Your task to perform on an android device: Go to Android settings Image 0: 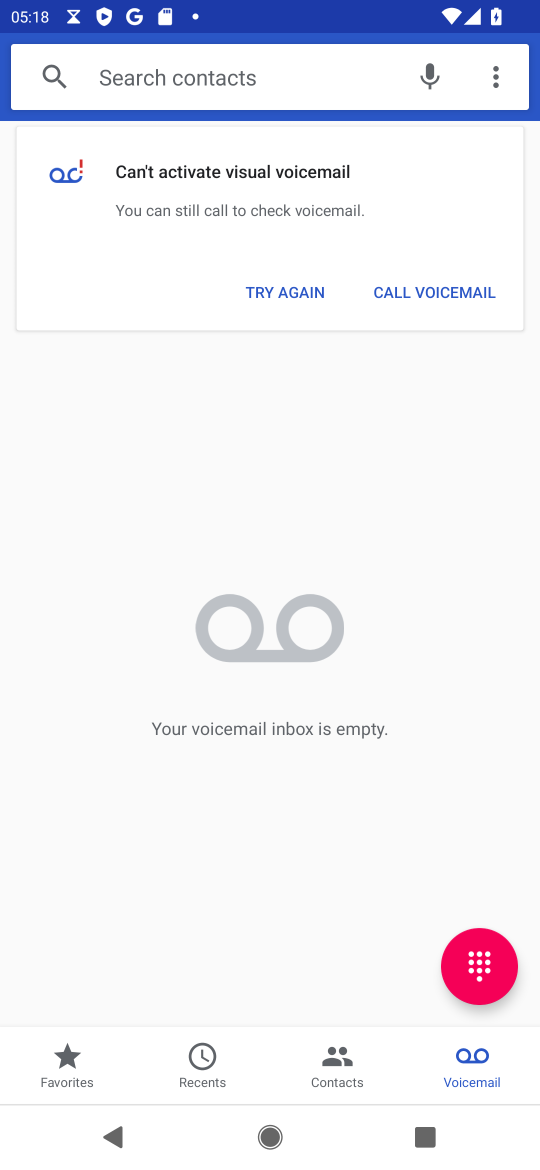
Step 0: press home button
Your task to perform on an android device: Go to Android settings Image 1: 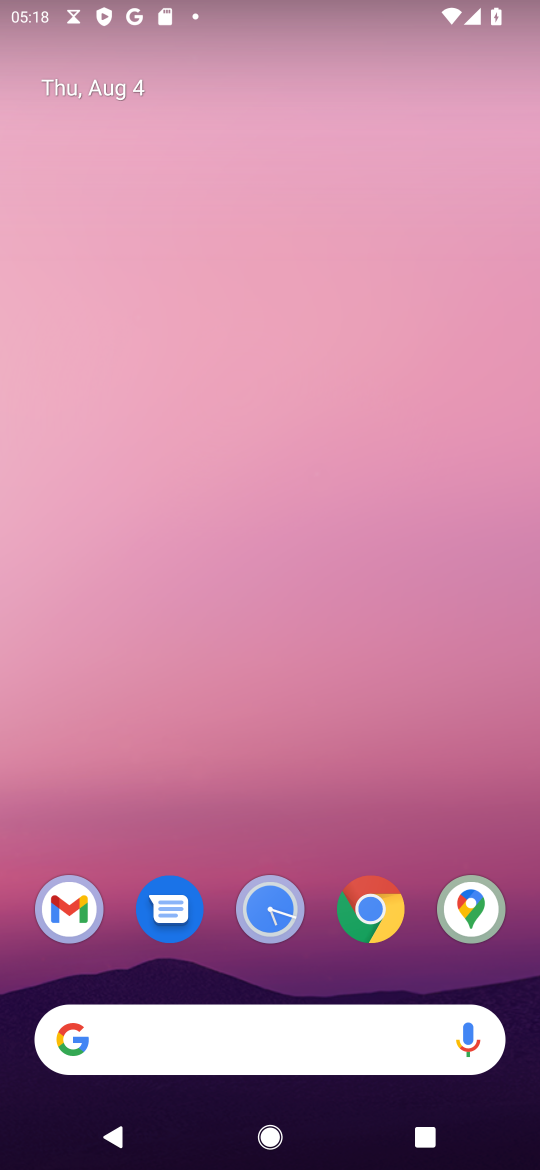
Step 1: drag from (211, 1026) to (463, 163)
Your task to perform on an android device: Go to Android settings Image 2: 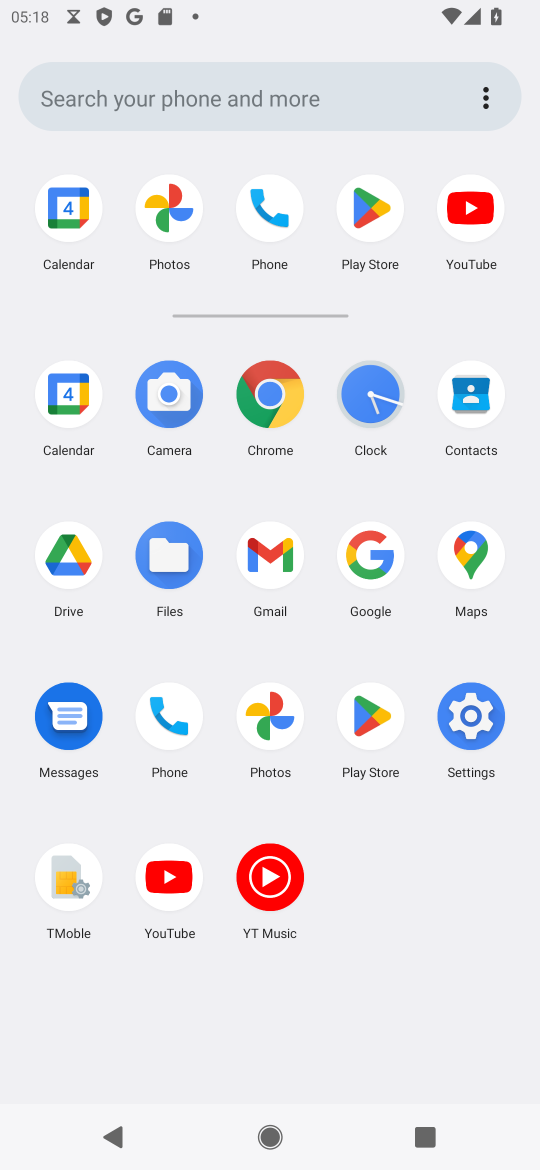
Step 2: click (473, 713)
Your task to perform on an android device: Go to Android settings Image 3: 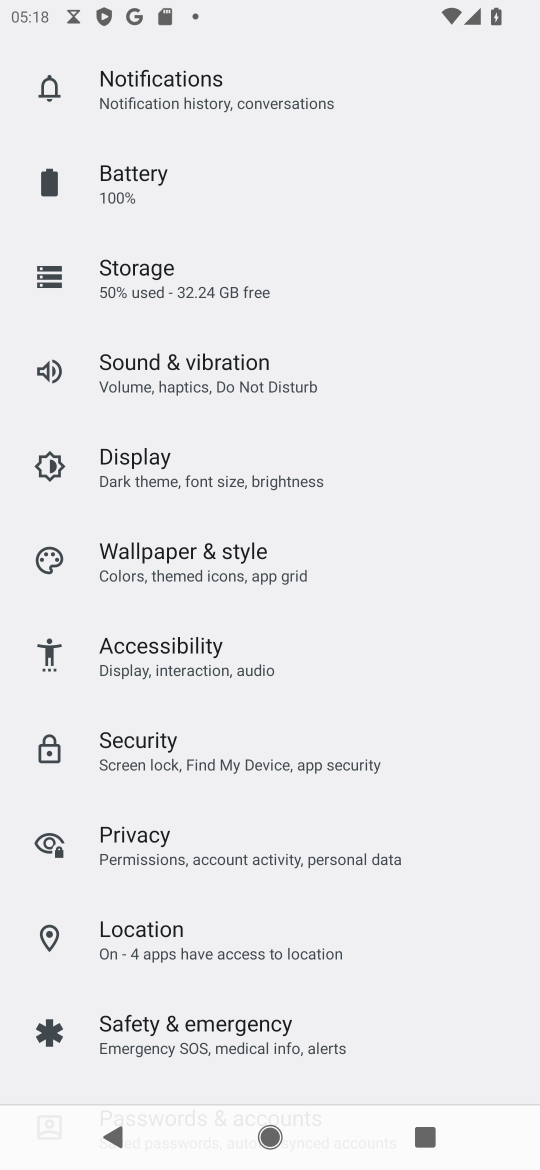
Step 3: task complete